Your task to perform on an android device: Search for good Indian restaurants Image 0: 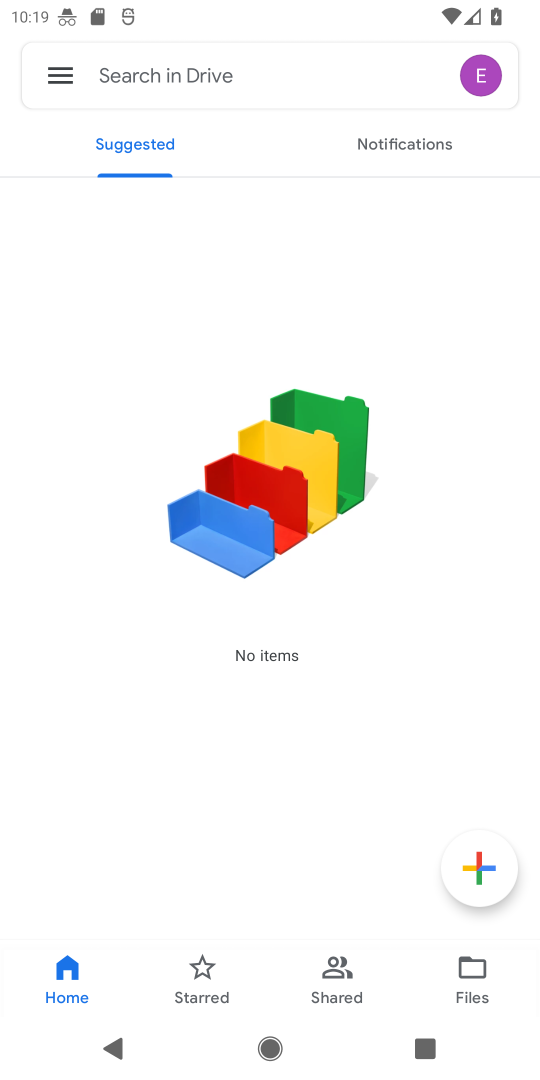
Step 0: press home button
Your task to perform on an android device: Search for good Indian restaurants Image 1: 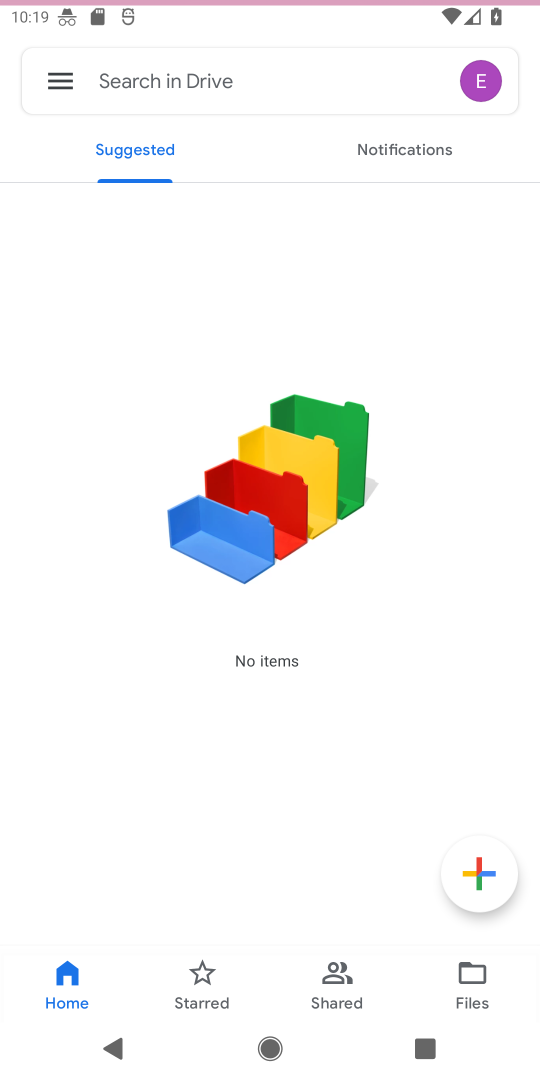
Step 1: press home button
Your task to perform on an android device: Search for good Indian restaurants Image 2: 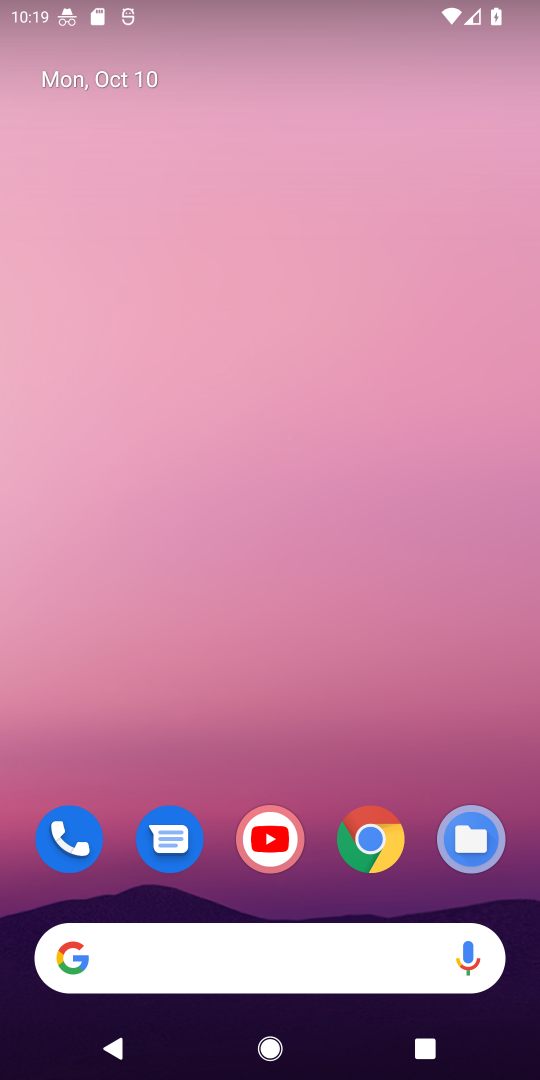
Step 2: drag from (325, 874) to (374, 177)
Your task to perform on an android device: Search for good Indian restaurants Image 3: 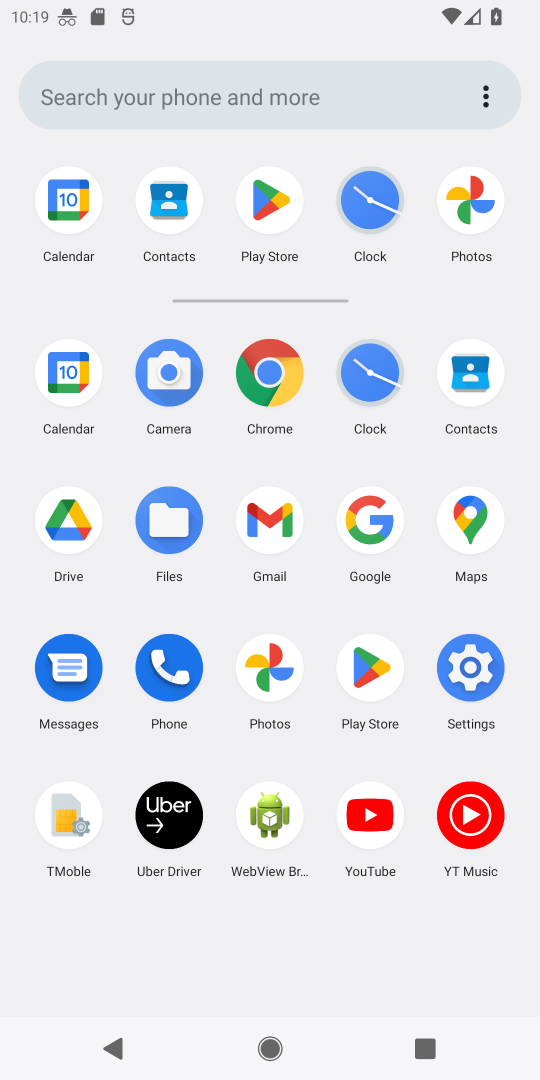
Step 3: click (269, 373)
Your task to perform on an android device: Search for good Indian restaurants Image 4: 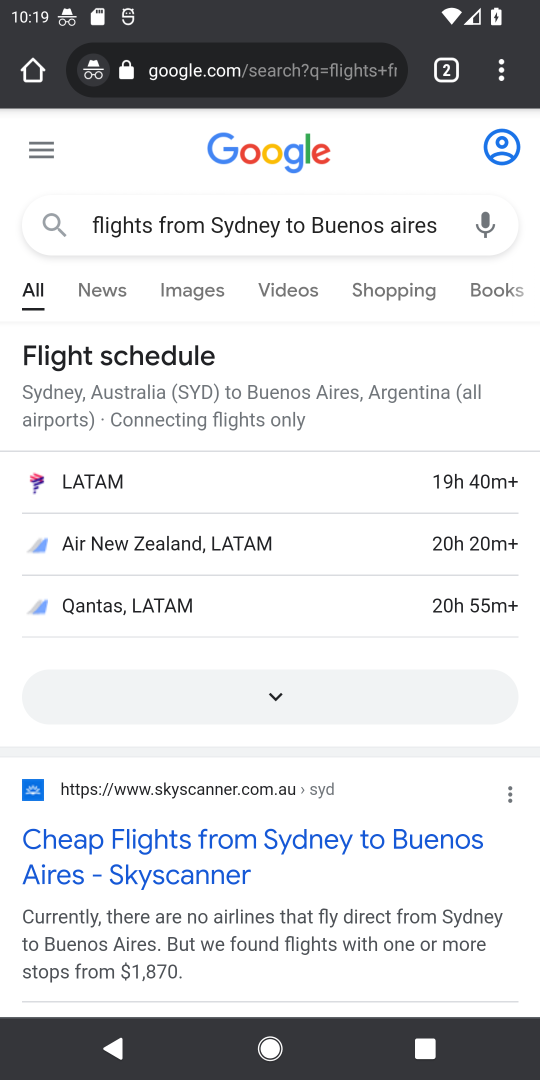
Step 4: click (273, 80)
Your task to perform on an android device: Search for good Indian restaurants Image 5: 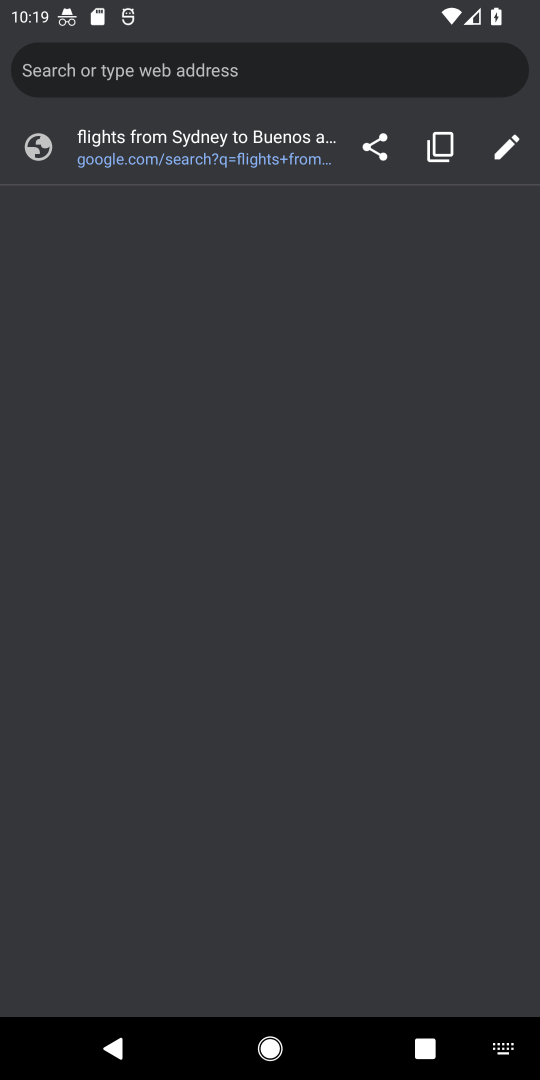
Step 5: type "good Indian restaurants"
Your task to perform on an android device: Search for good Indian restaurants Image 6: 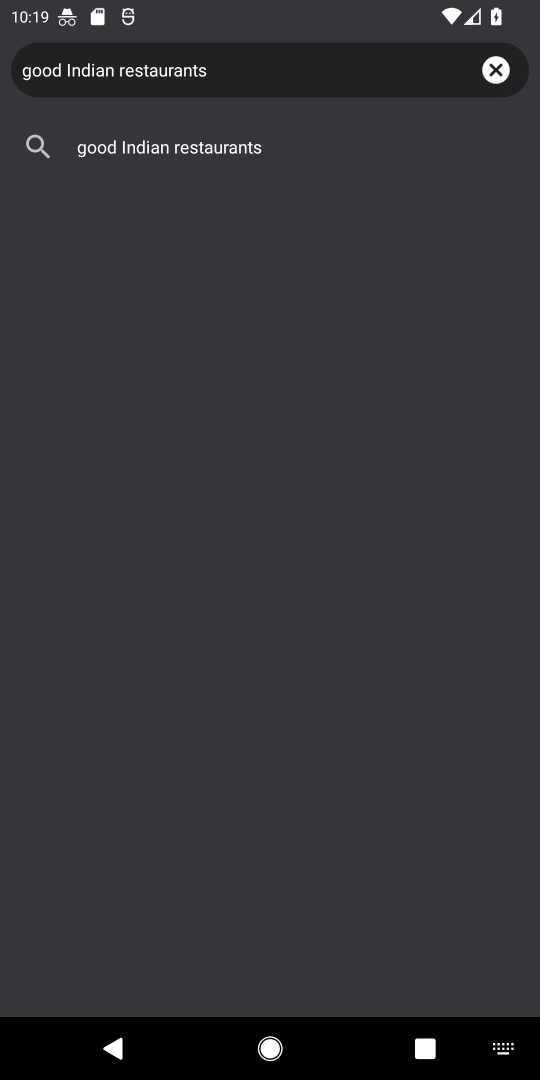
Step 6: press enter
Your task to perform on an android device: Search for good Indian restaurants Image 7: 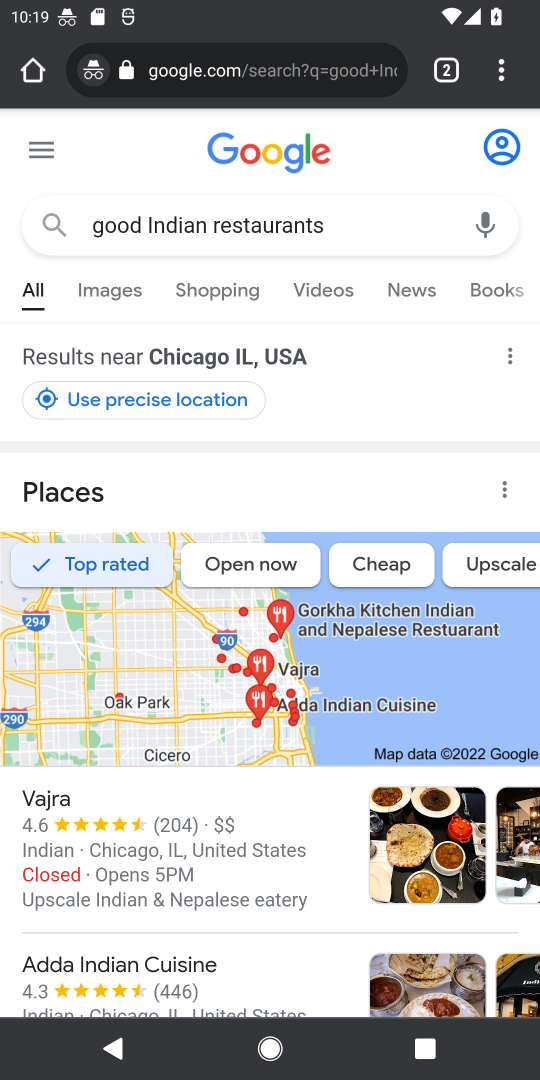
Step 7: task complete